Your task to perform on an android device: toggle translation in the chrome app Image 0: 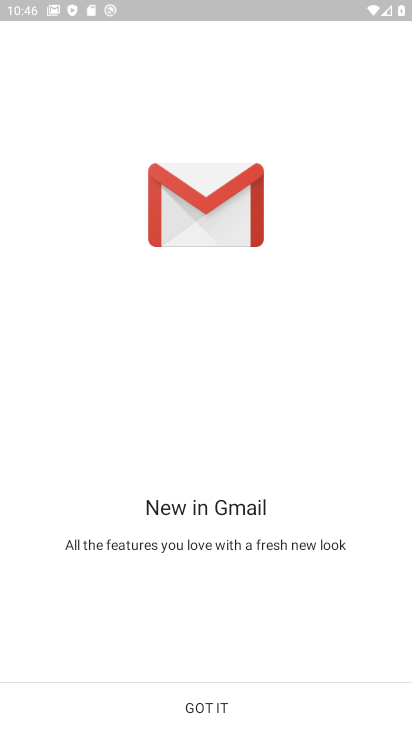
Step 0: press home button
Your task to perform on an android device: toggle translation in the chrome app Image 1: 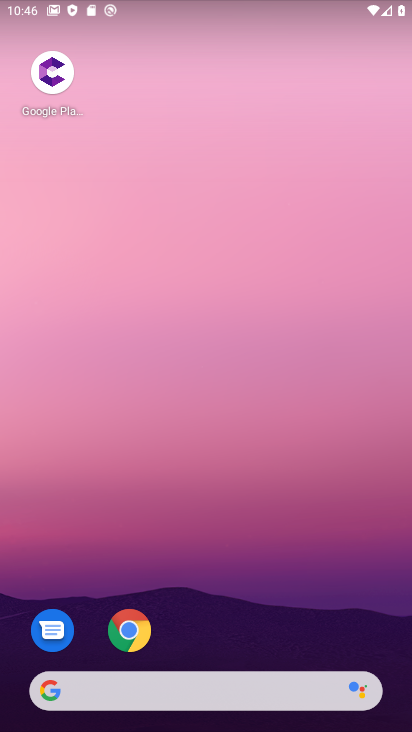
Step 1: click (184, 643)
Your task to perform on an android device: toggle translation in the chrome app Image 2: 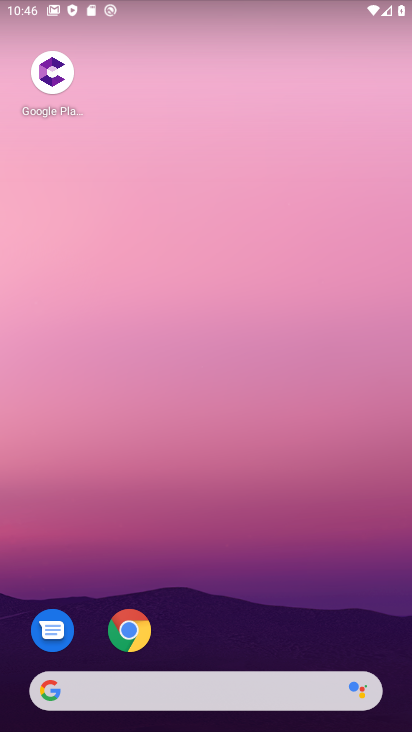
Step 2: drag from (174, 528) to (193, 76)
Your task to perform on an android device: toggle translation in the chrome app Image 3: 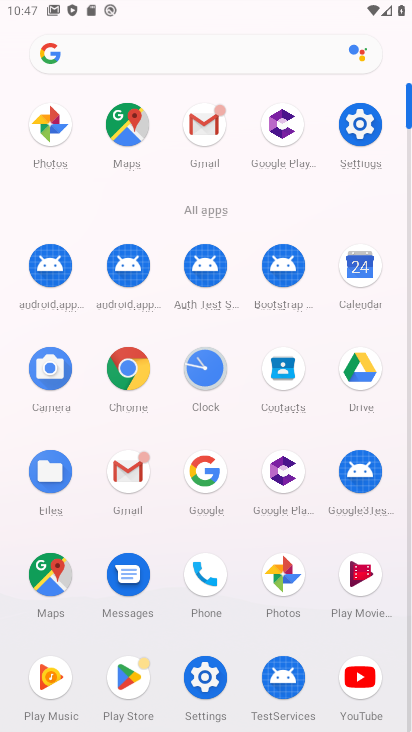
Step 3: click (127, 403)
Your task to perform on an android device: toggle translation in the chrome app Image 4: 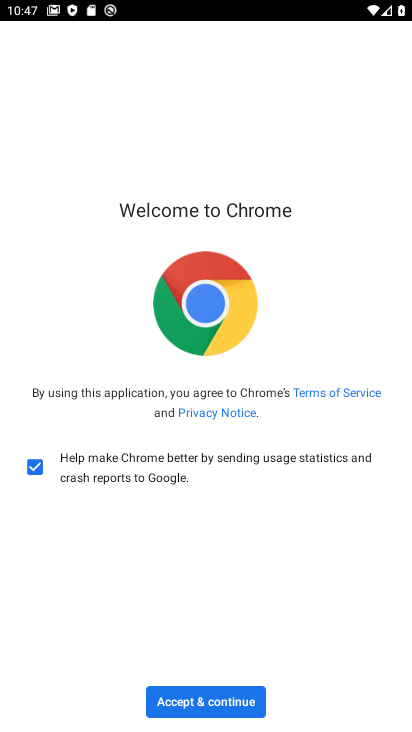
Step 4: click (184, 705)
Your task to perform on an android device: toggle translation in the chrome app Image 5: 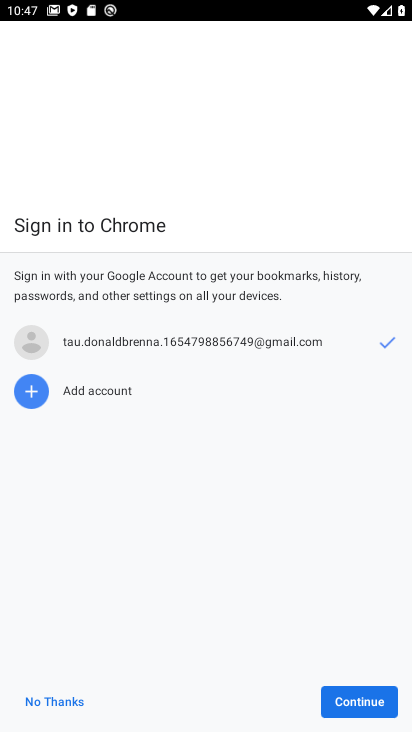
Step 5: click (378, 697)
Your task to perform on an android device: toggle translation in the chrome app Image 6: 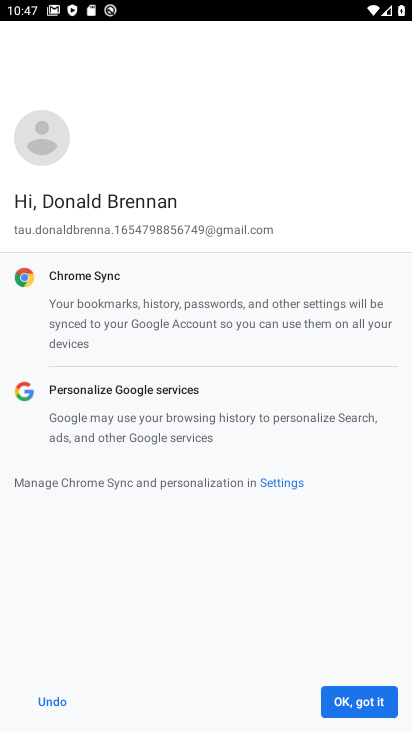
Step 6: click (378, 697)
Your task to perform on an android device: toggle translation in the chrome app Image 7: 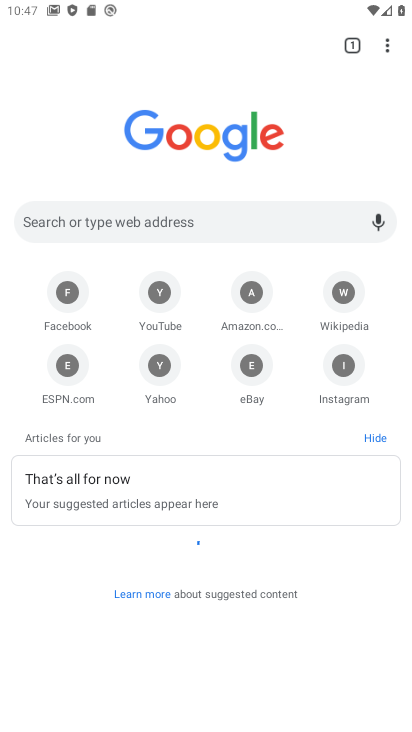
Step 7: click (386, 51)
Your task to perform on an android device: toggle translation in the chrome app Image 8: 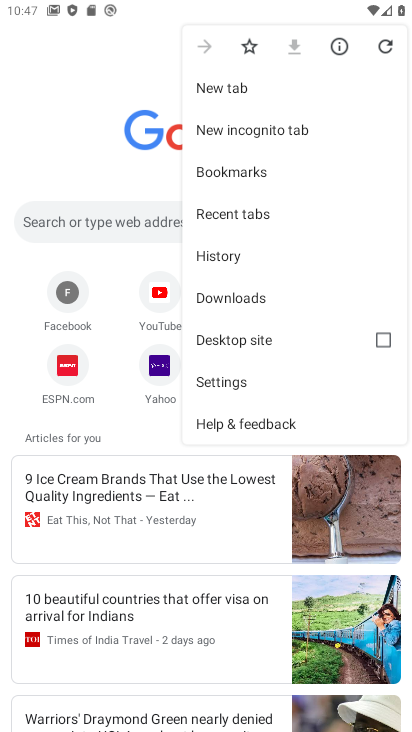
Step 8: click (214, 381)
Your task to perform on an android device: toggle translation in the chrome app Image 9: 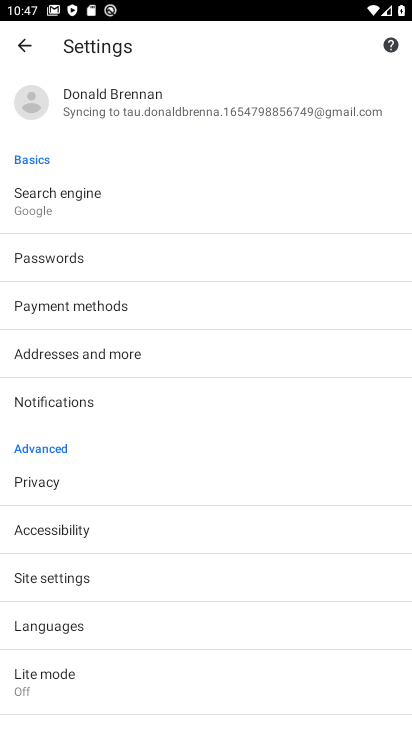
Step 9: click (55, 622)
Your task to perform on an android device: toggle translation in the chrome app Image 10: 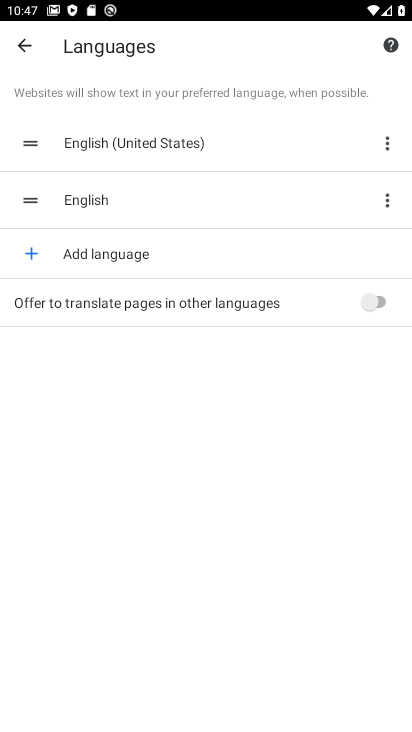
Step 10: click (381, 305)
Your task to perform on an android device: toggle translation in the chrome app Image 11: 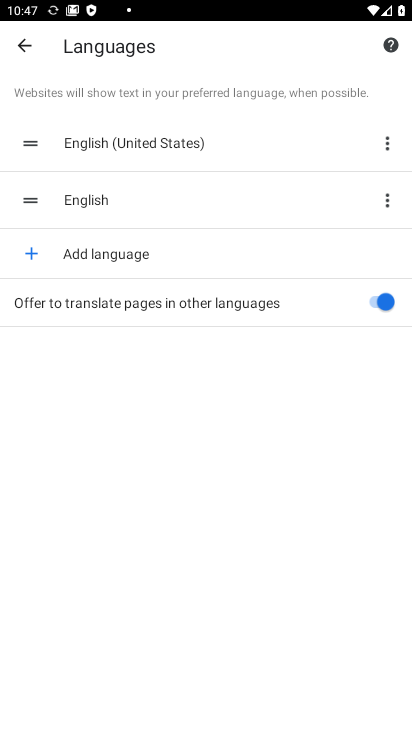
Step 11: task complete